Your task to perform on an android device: Open privacy settings Image 0: 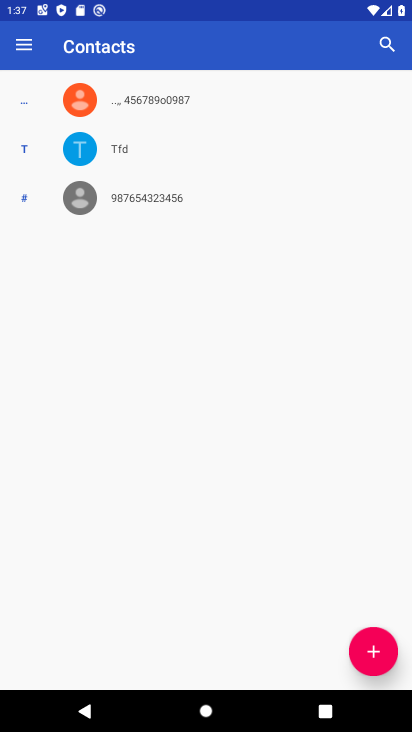
Step 0: press home button
Your task to perform on an android device: Open privacy settings Image 1: 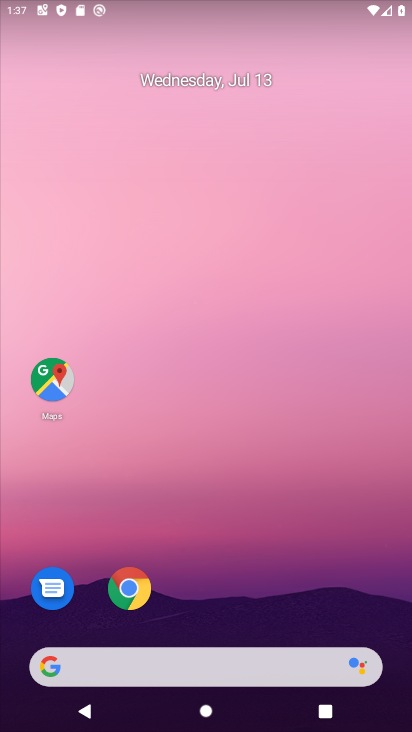
Step 1: drag from (135, 643) to (139, 271)
Your task to perform on an android device: Open privacy settings Image 2: 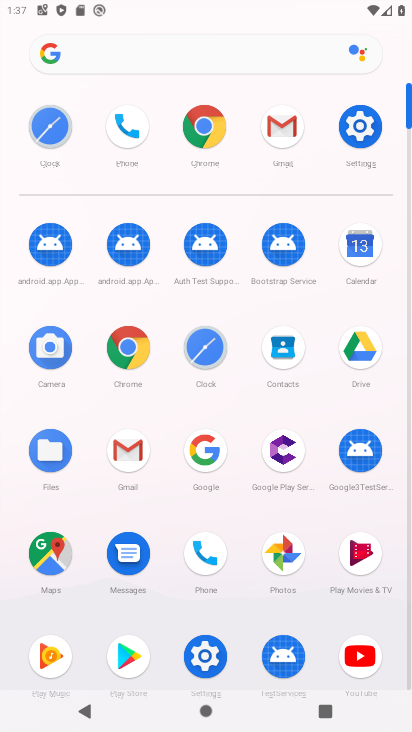
Step 2: click (358, 121)
Your task to perform on an android device: Open privacy settings Image 3: 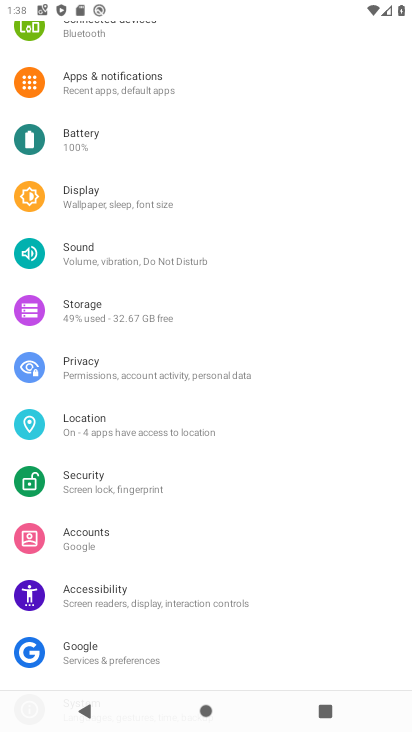
Step 3: click (141, 361)
Your task to perform on an android device: Open privacy settings Image 4: 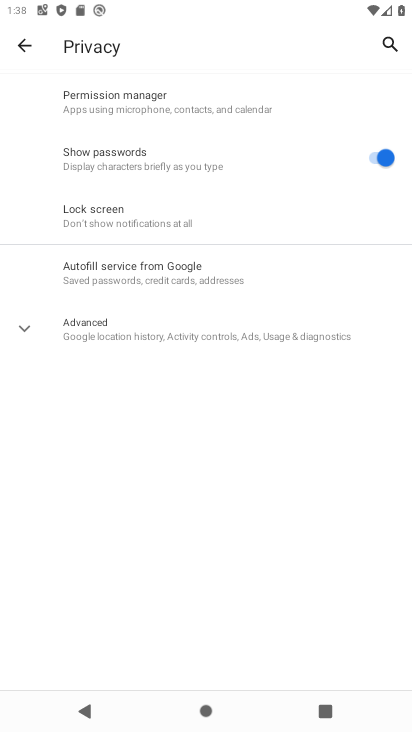
Step 4: click (142, 300)
Your task to perform on an android device: Open privacy settings Image 5: 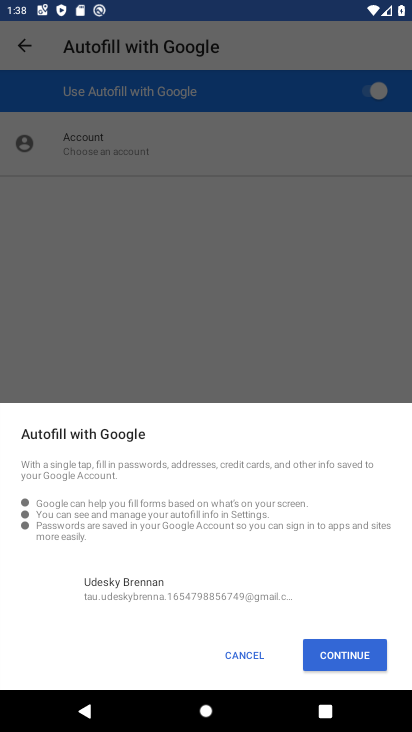
Step 5: task complete